Your task to perform on an android device: star an email in the gmail app Image 0: 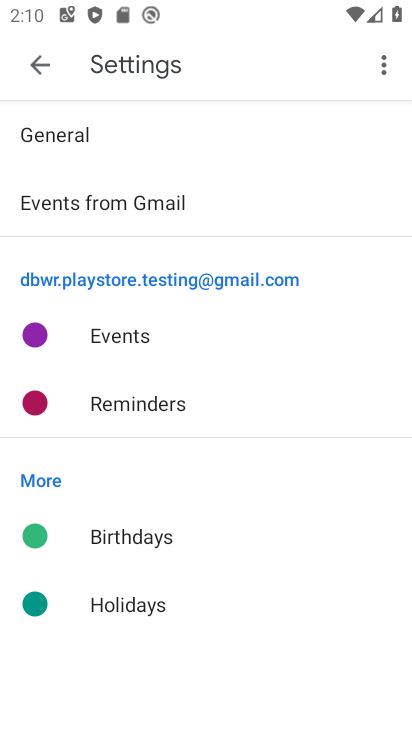
Step 0: press home button
Your task to perform on an android device: star an email in the gmail app Image 1: 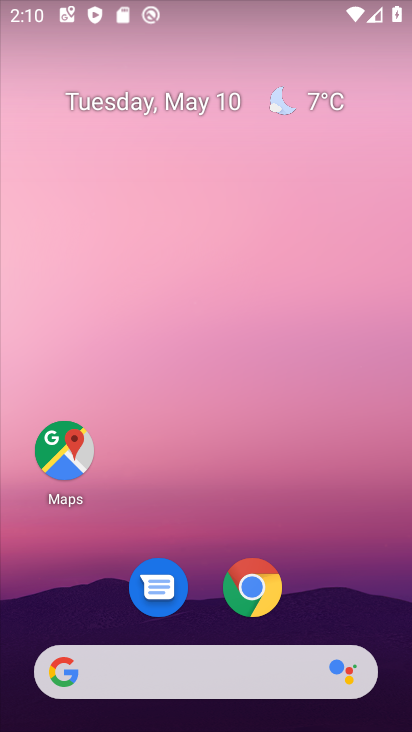
Step 1: drag from (329, 555) to (263, 70)
Your task to perform on an android device: star an email in the gmail app Image 2: 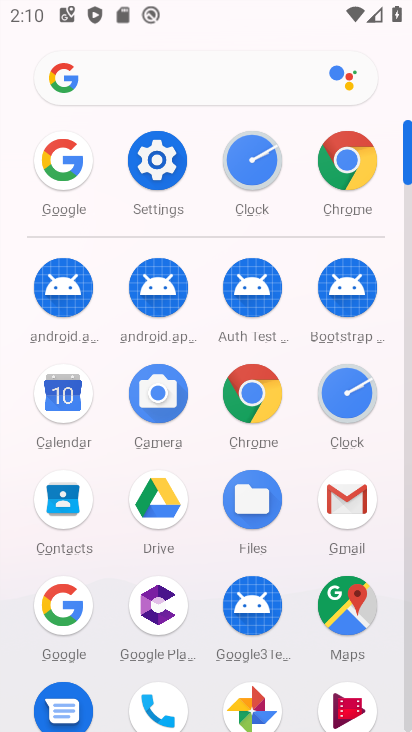
Step 2: click (330, 489)
Your task to perform on an android device: star an email in the gmail app Image 3: 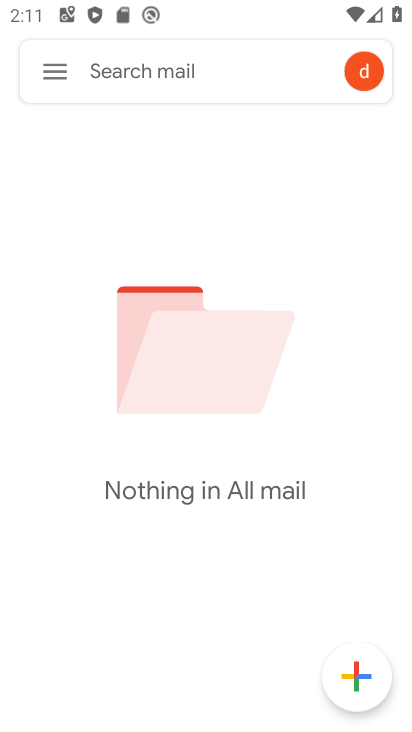
Step 3: click (61, 74)
Your task to perform on an android device: star an email in the gmail app Image 4: 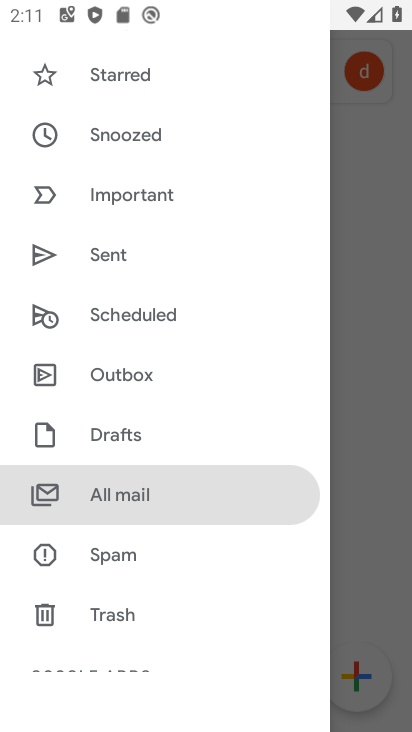
Step 4: click (155, 189)
Your task to perform on an android device: star an email in the gmail app Image 5: 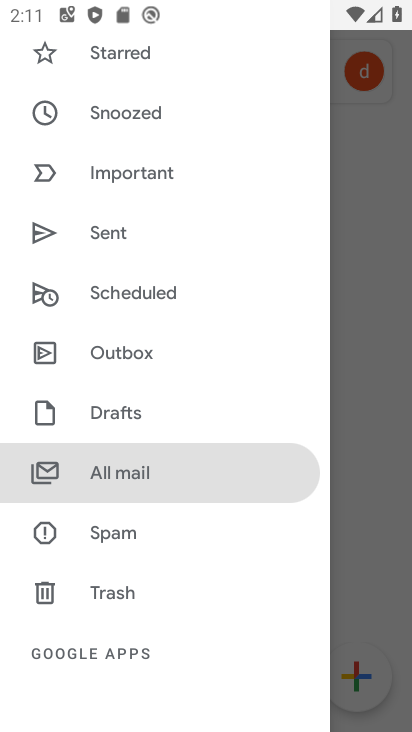
Step 5: click (136, 465)
Your task to perform on an android device: star an email in the gmail app Image 6: 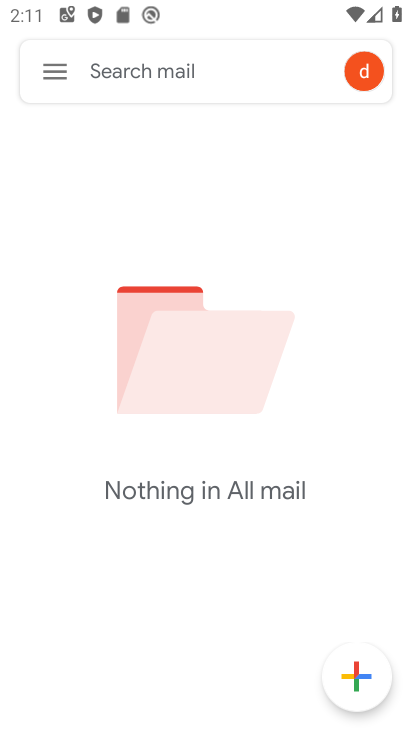
Step 6: task complete